Your task to perform on an android device: turn off airplane mode Image 0: 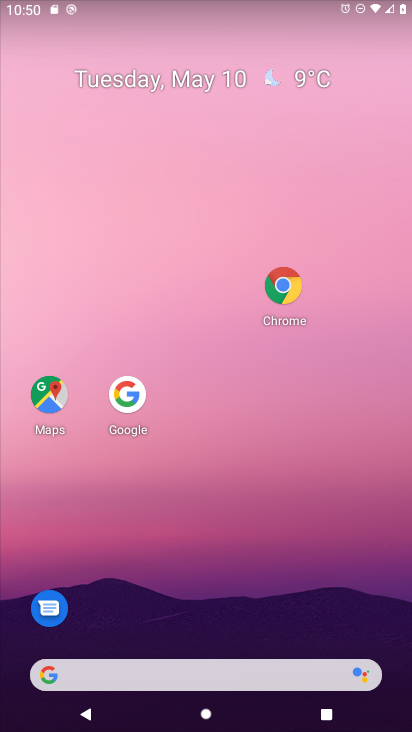
Step 0: drag from (168, 671) to (260, 80)
Your task to perform on an android device: turn off airplane mode Image 1: 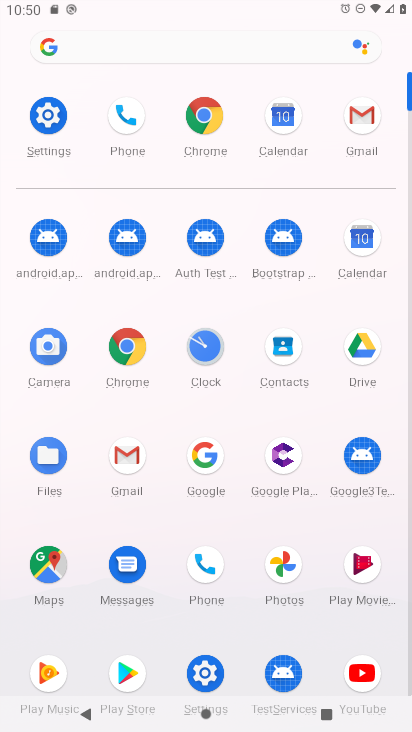
Step 1: click (57, 113)
Your task to perform on an android device: turn off airplane mode Image 2: 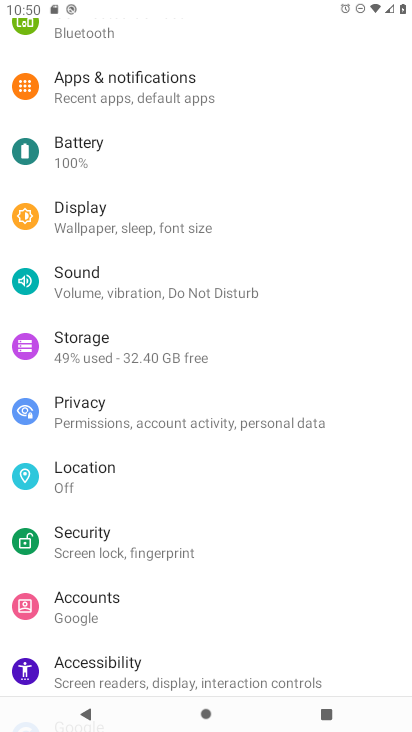
Step 2: drag from (282, 79) to (275, 453)
Your task to perform on an android device: turn off airplane mode Image 3: 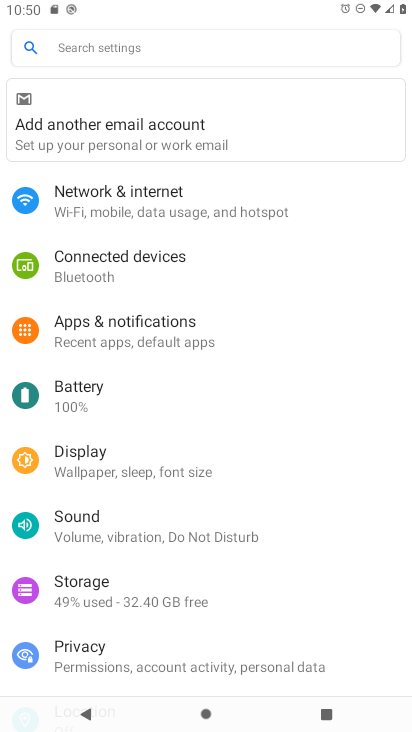
Step 3: click (184, 200)
Your task to perform on an android device: turn off airplane mode Image 4: 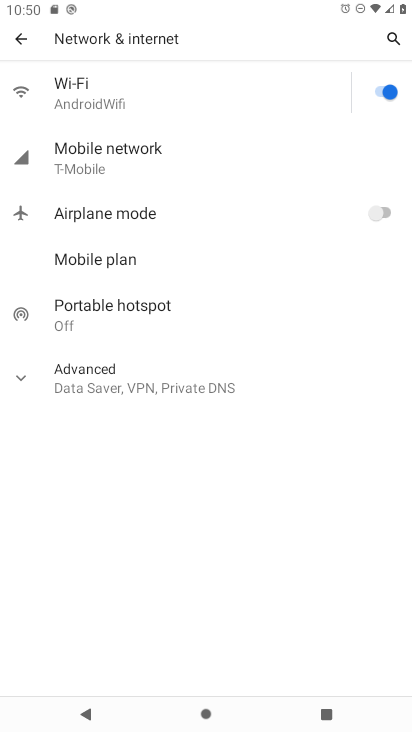
Step 4: task complete